Your task to perform on an android device: uninstall "LinkedIn" Image 0: 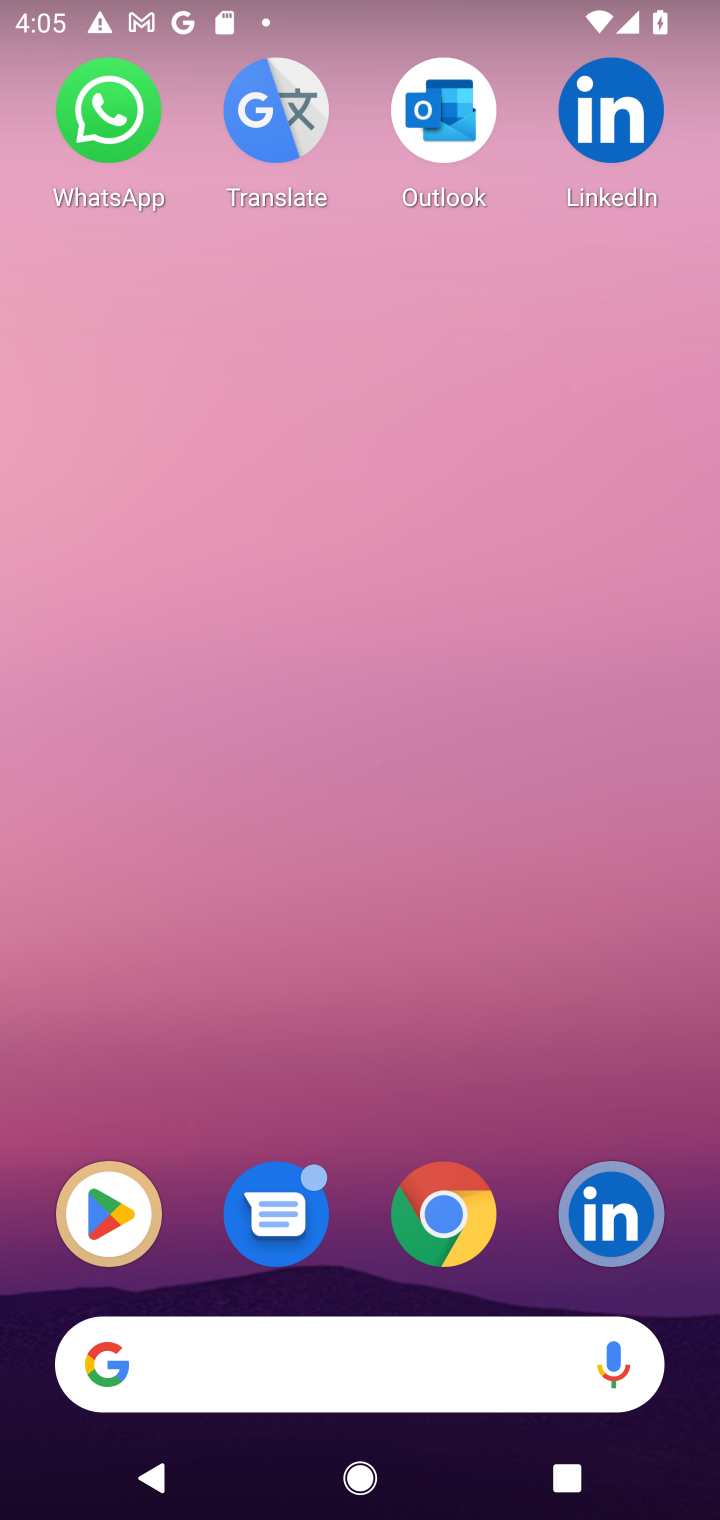
Step 0: click (96, 1208)
Your task to perform on an android device: uninstall "LinkedIn" Image 1: 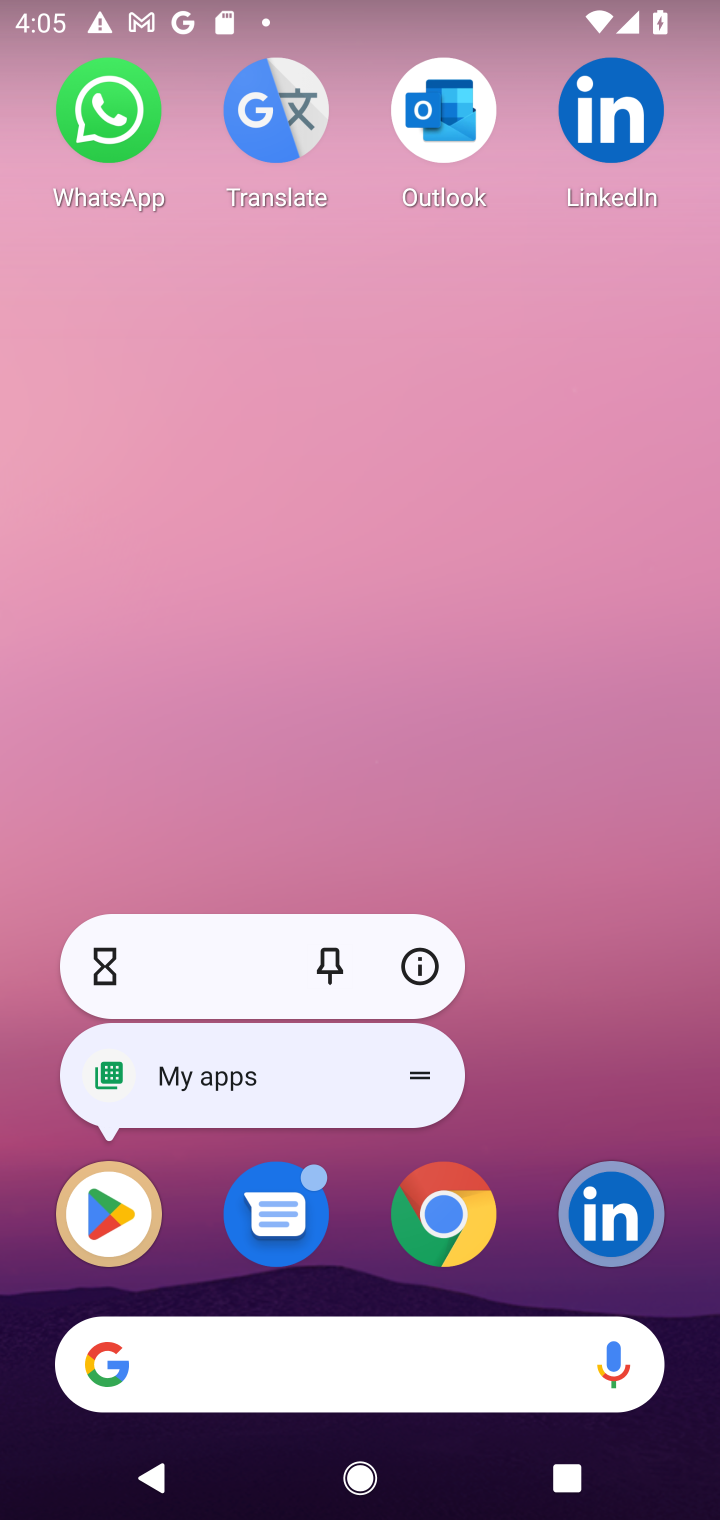
Step 1: click (94, 1245)
Your task to perform on an android device: uninstall "LinkedIn" Image 2: 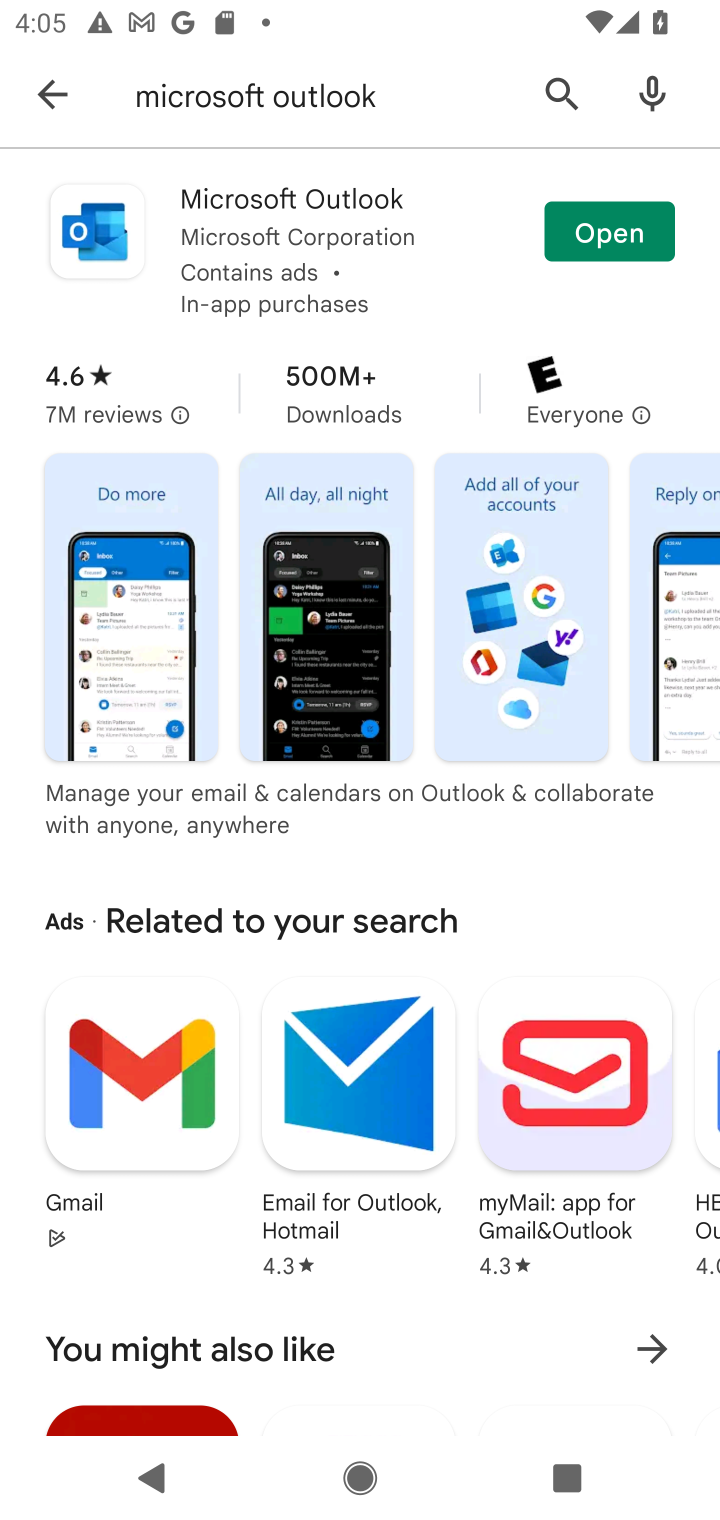
Step 2: click (251, 101)
Your task to perform on an android device: uninstall "LinkedIn" Image 3: 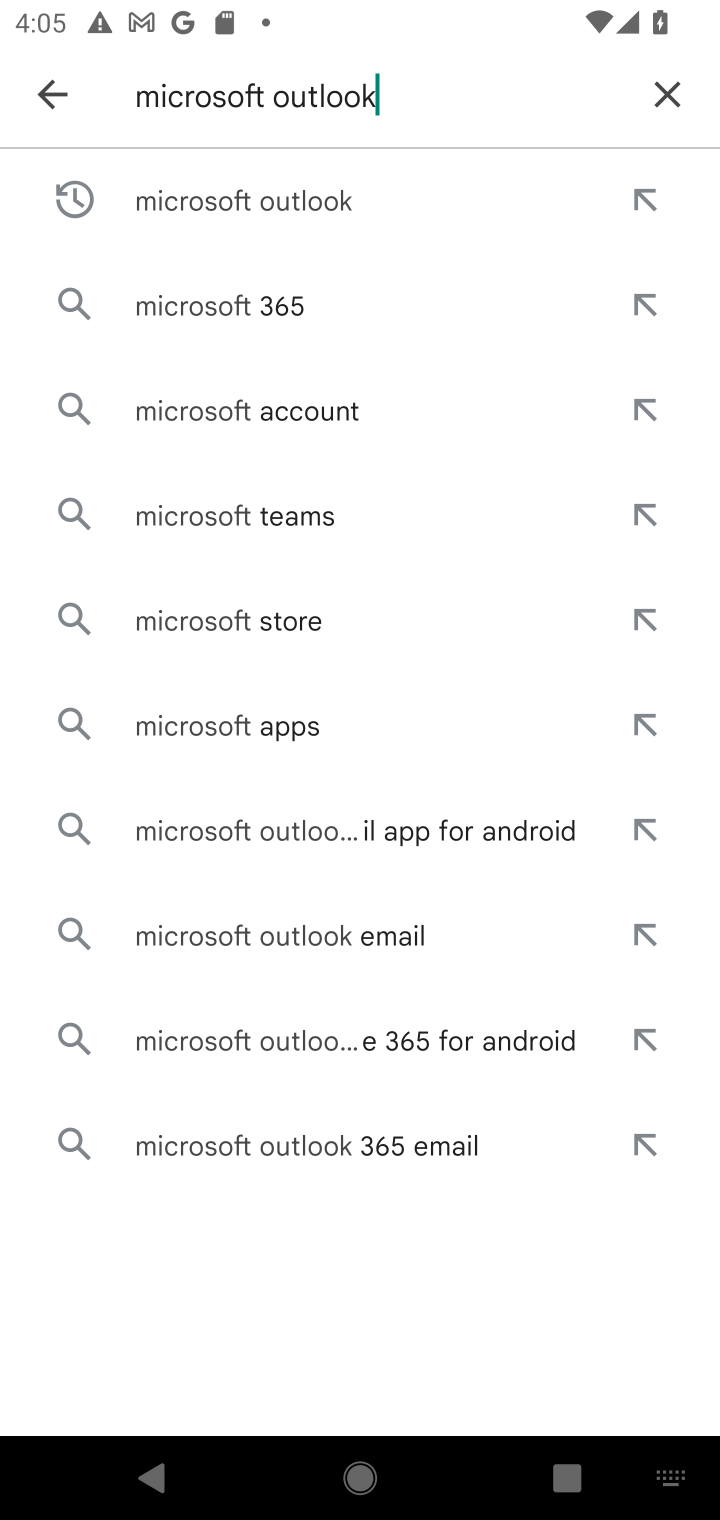
Step 3: click (664, 99)
Your task to perform on an android device: uninstall "LinkedIn" Image 4: 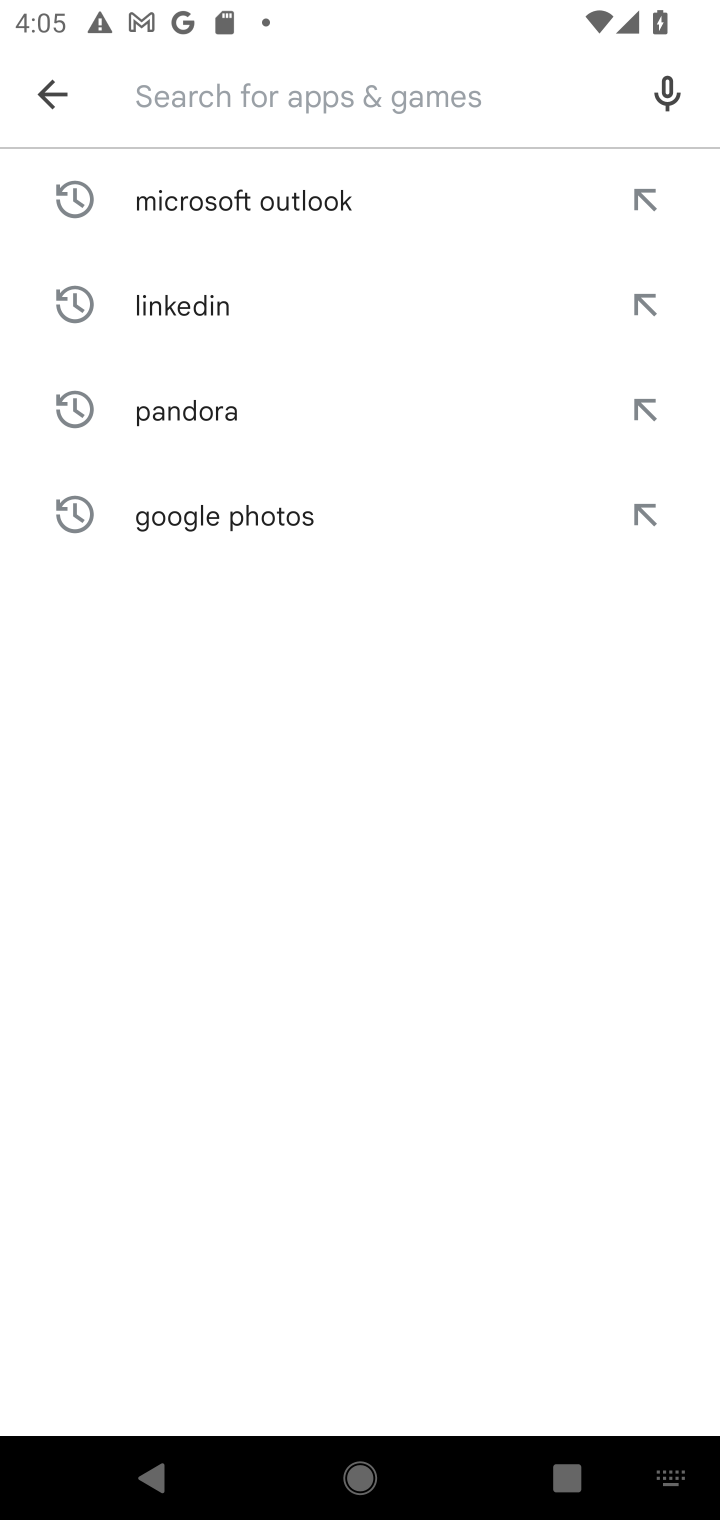
Step 4: type "linkedin"
Your task to perform on an android device: uninstall "LinkedIn" Image 5: 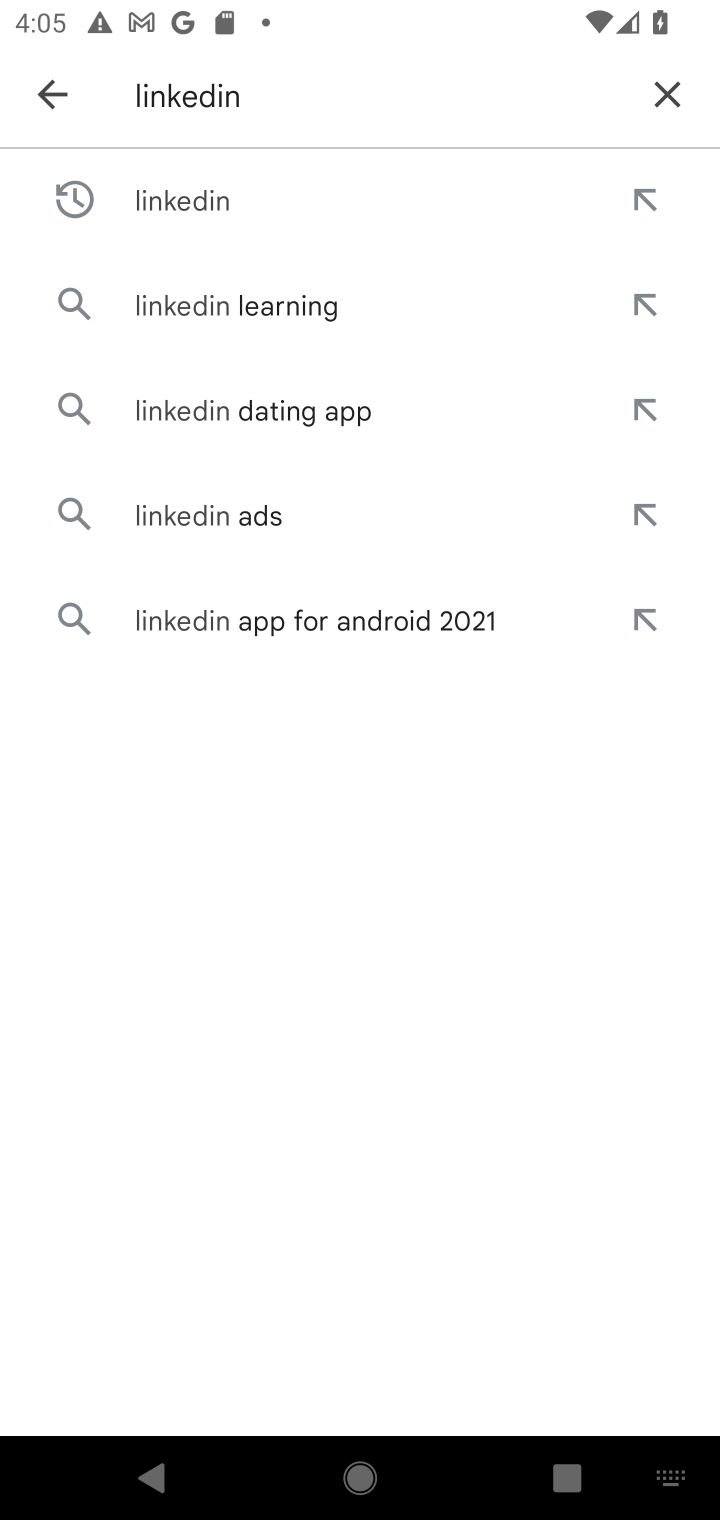
Step 5: click (280, 192)
Your task to perform on an android device: uninstall "LinkedIn" Image 6: 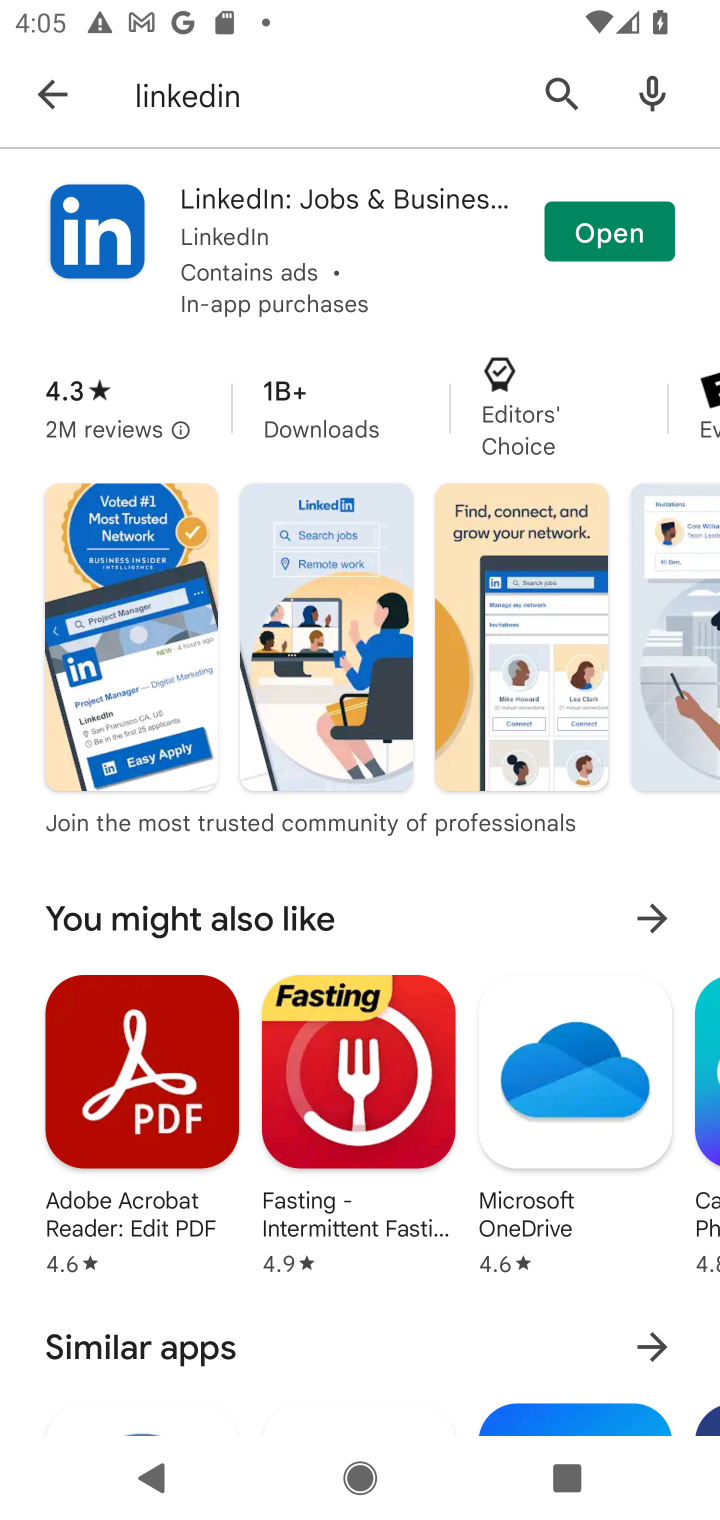
Step 6: click (396, 248)
Your task to perform on an android device: uninstall "LinkedIn" Image 7: 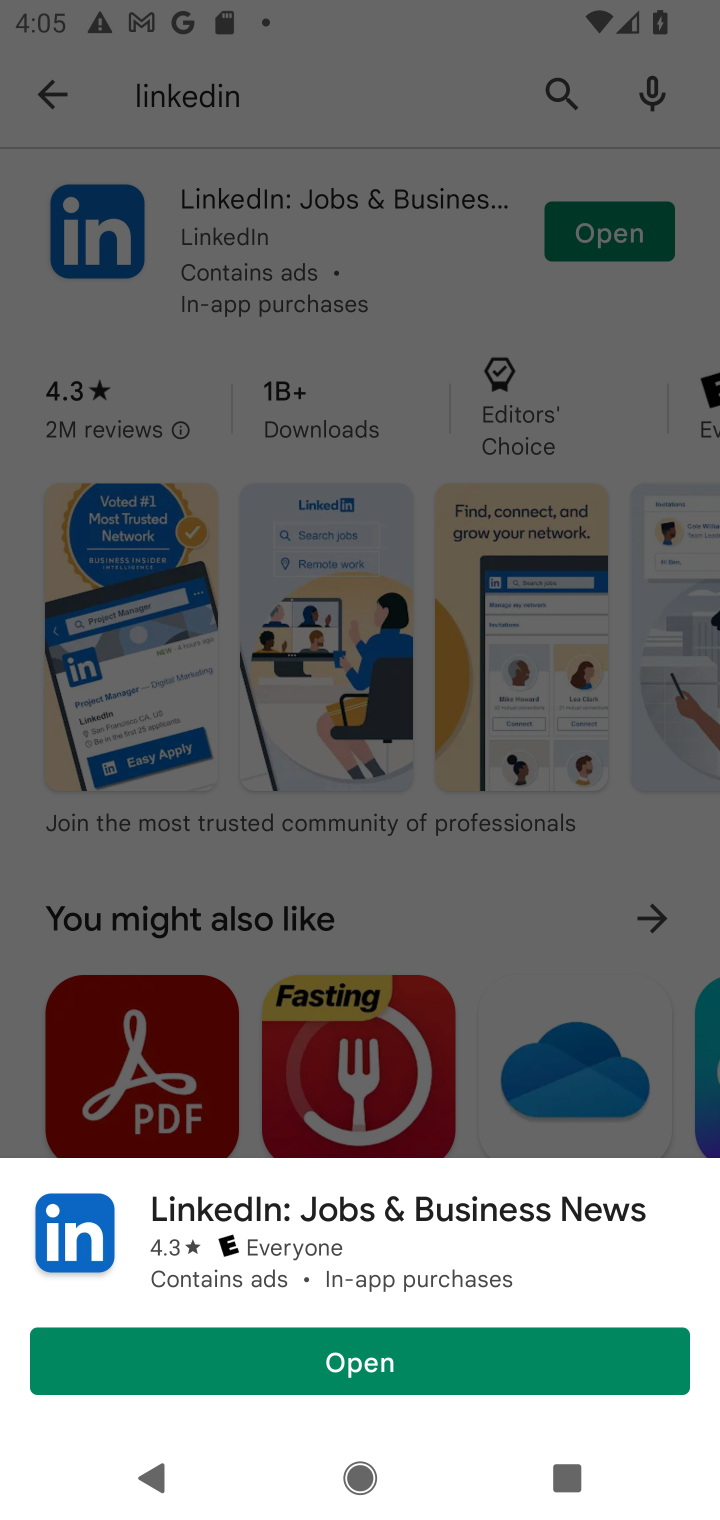
Step 7: click (175, 192)
Your task to perform on an android device: uninstall "LinkedIn" Image 8: 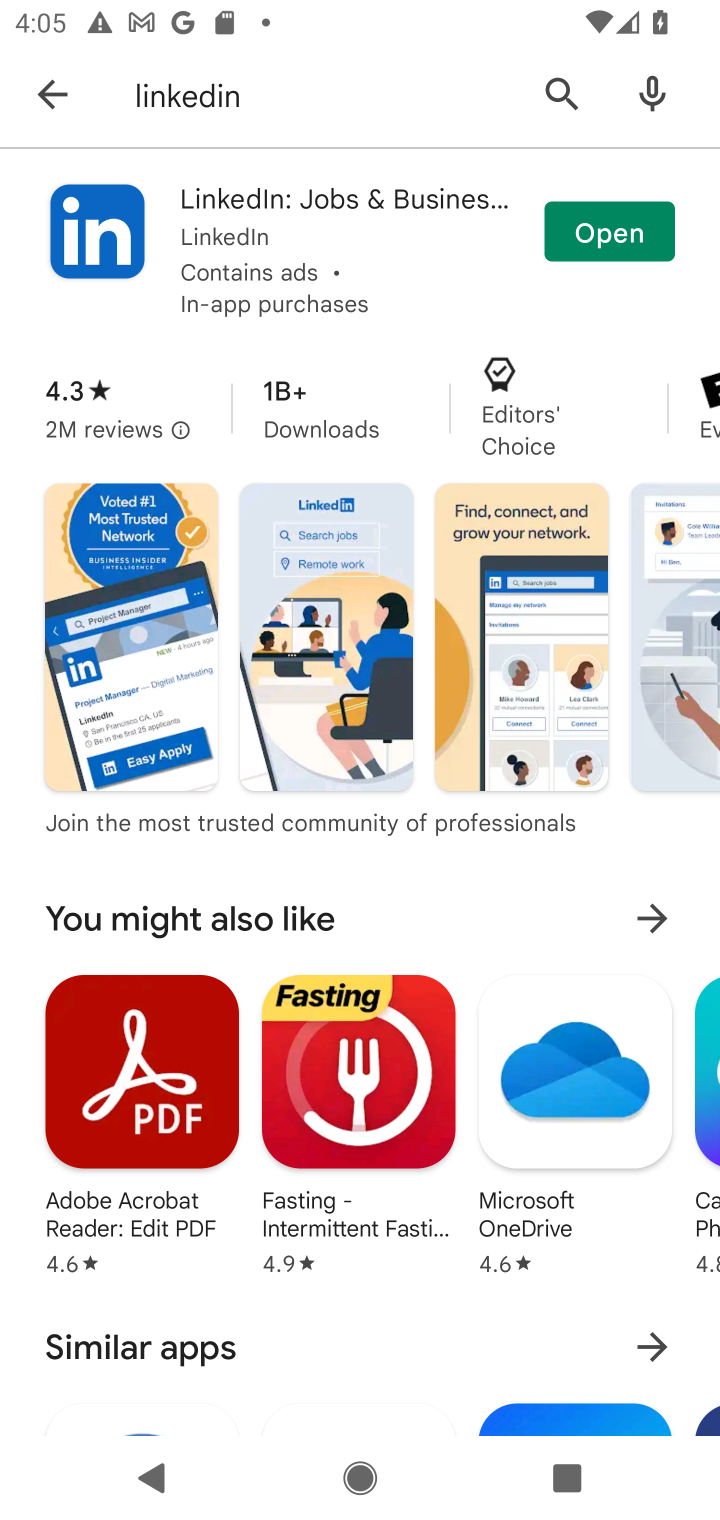
Step 8: click (88, 248)
Your task to perform on an android device: uninstall "LinkedIn" Image 9: 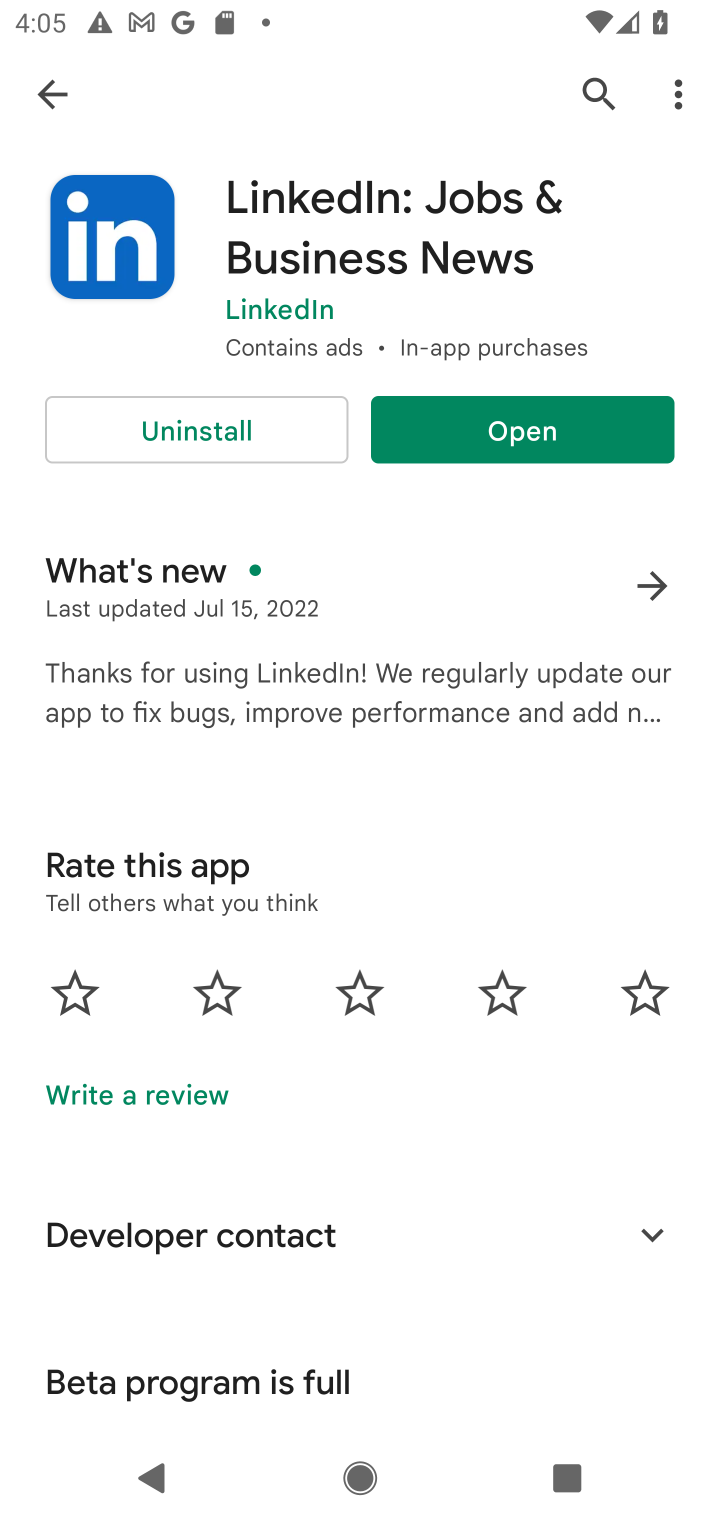
Step 9: click (235, 415)
Your task to perform on an android device: uninstall "LinkedIn" Image 10: 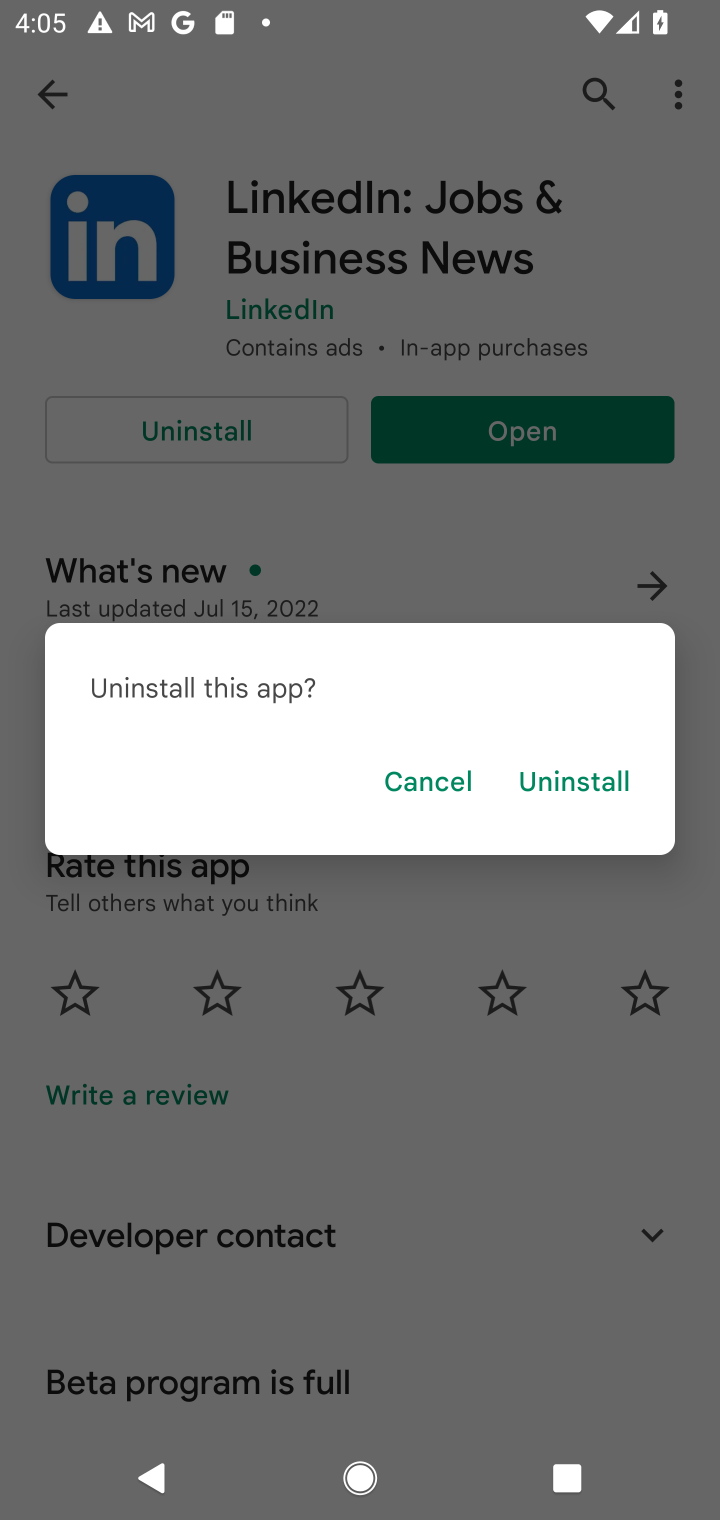
Step 10: click (612, 782)
Your task to perform on an android device: uninstall "LinkedIn" Image 11: 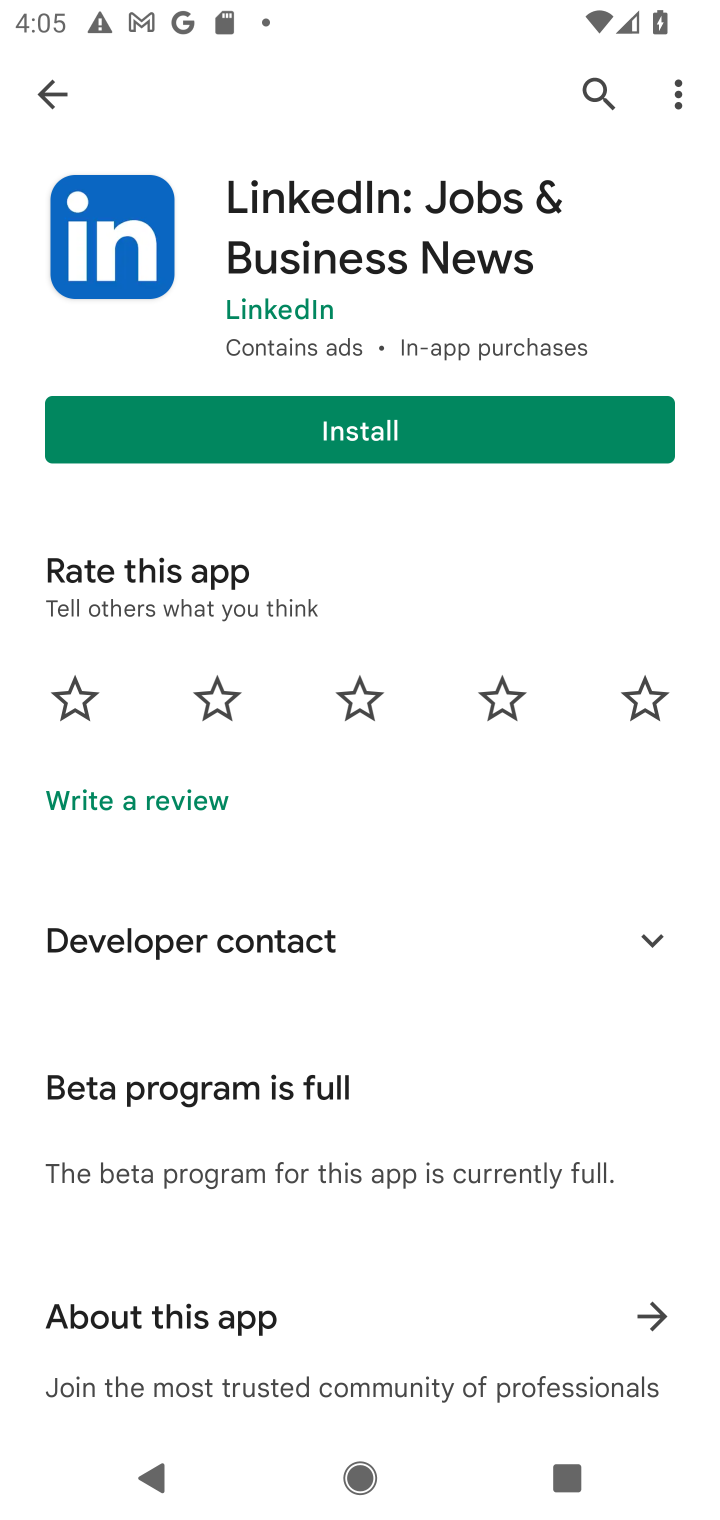
Step 11: task complete